Your task to perform on an android device: turn off wifi Image 0: 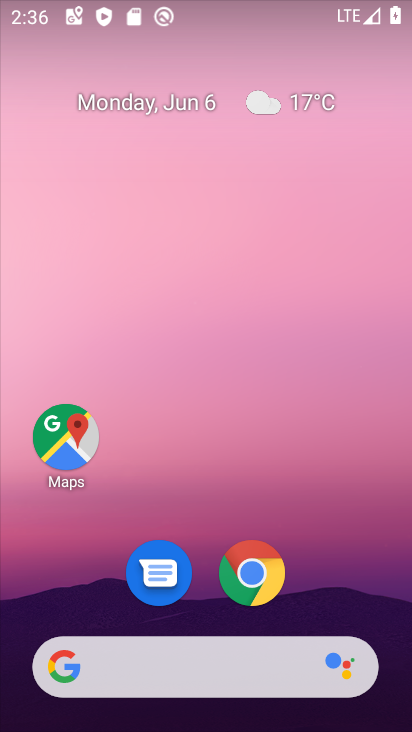
Step 0: drag from (350, 612) to (353, 180)
Your task to perform on an android device: turn off wifi Image 1: 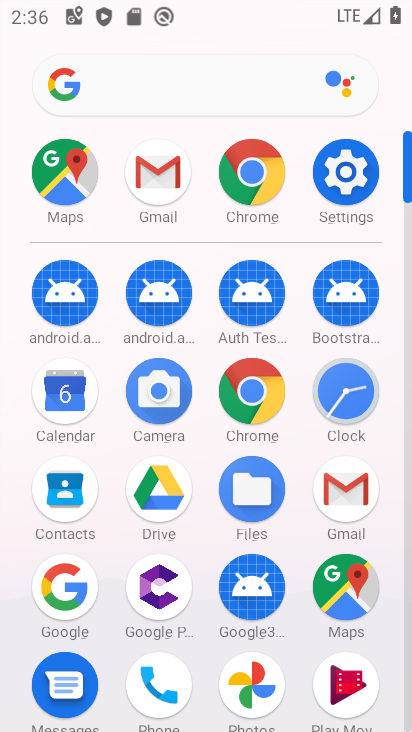
Step 1: click (343, 181)
Your task to perform on an android device: turn off wifi Image 2: 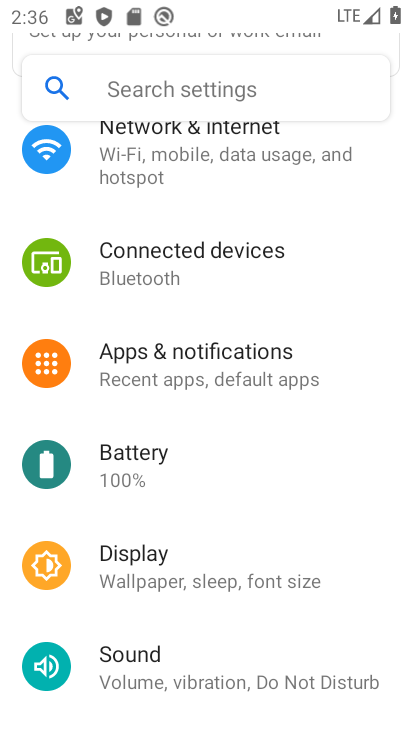
Step 2: drag from (371, 459) to (375, 327)
Your task to perform on an android device: turn off wifi Image 3: 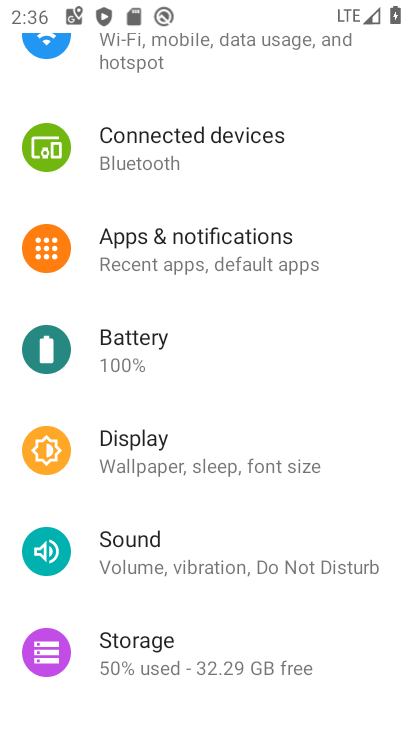
Step 3: drag from (361, 517) to (359, 344)
Your task to perform on an android device: turn off wifi Image 4: 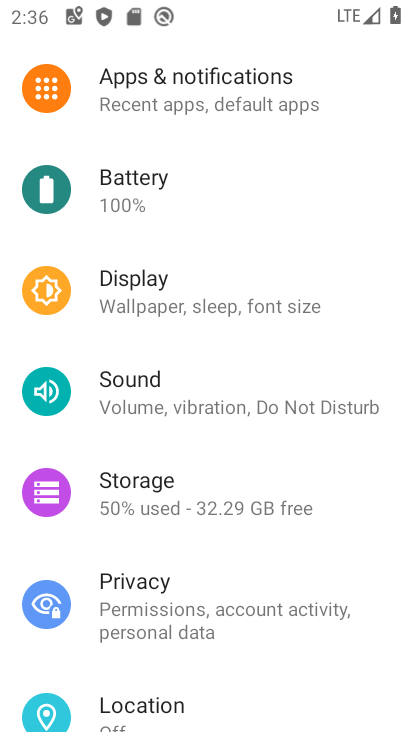
Step 4: drag from (362, 542) to (346, 405)
Your task to perform on an android device: turn off wifi Image 5: 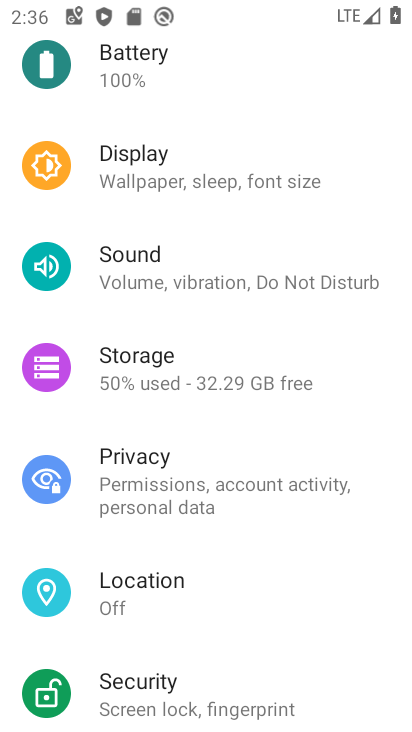
Step 5: drag from (358, 578) to (369, 431)
Your task to perform on an android device: turn off wifi Image 6: 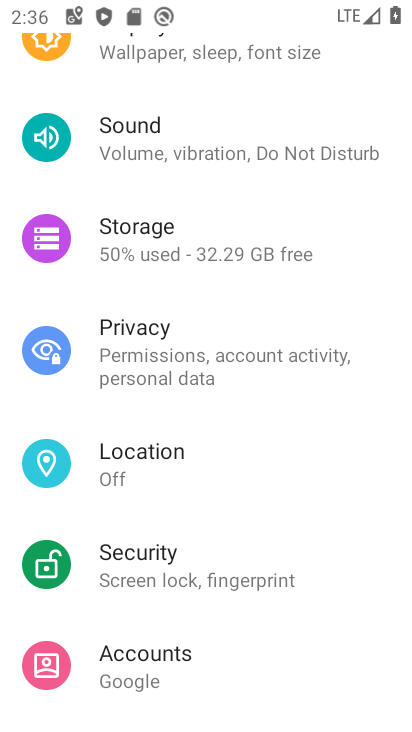
Step 6: drag from (343, 597) to (360, 409)
Your task to perform on an android device: turn off wifi Image 7: 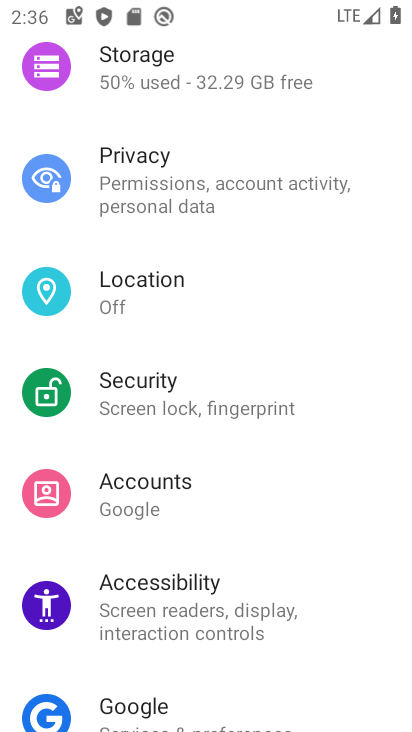
Step 7: drag from (366, 603) to (361, 453)
Your task to perform on an android device: turn off wifi Image 8: 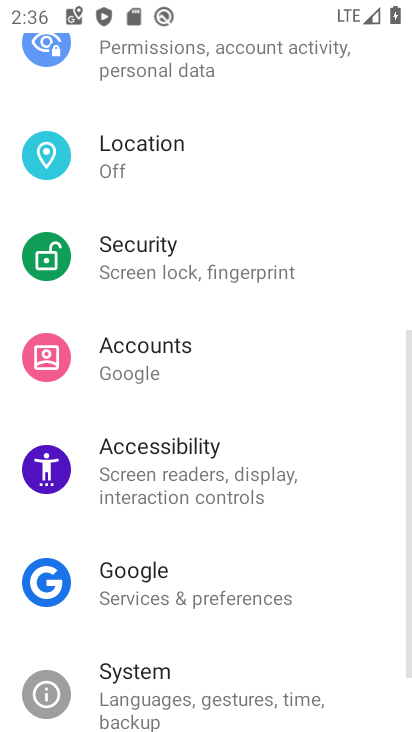
Step 8: drag from (337, 278) to (378, 460)
Your task to perform on an android device: turn off wifi Image 9: 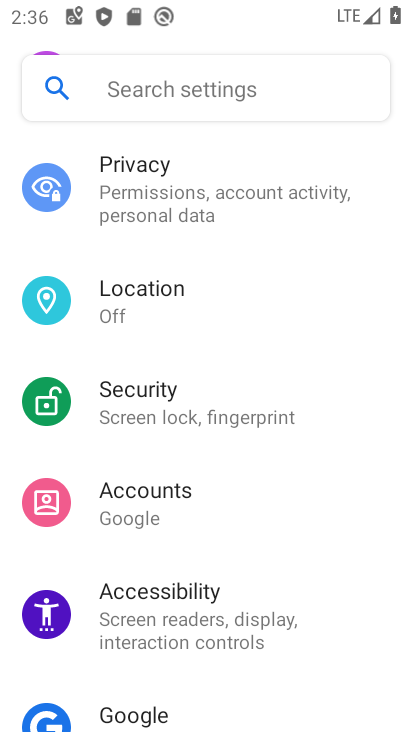
Step 9: drag from (353, 265) to (355, 401)
Your task to perform on an android device: turn off wifi Image 10: 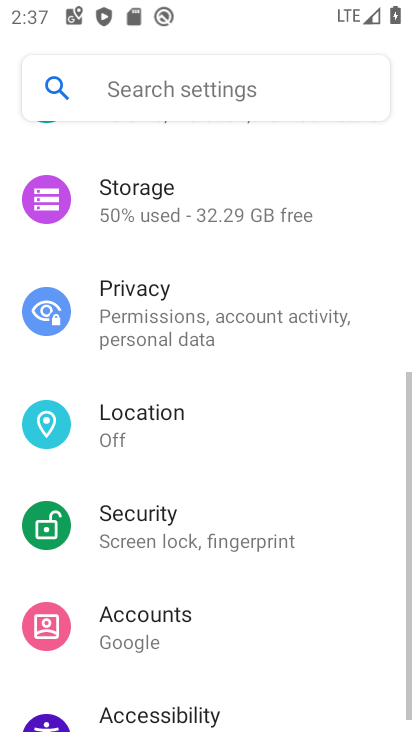
Step 10: drag from (366, 232) to (382, 354)
Your task to perform on an android device: turn off wifi Image 11: 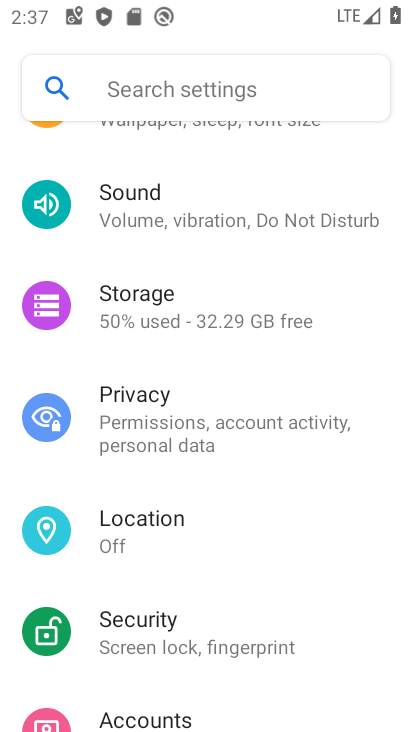
Step 11: drag from (368, 184) to (351, 352)
Your task to perform on an android device: turn off wifi Image 12: 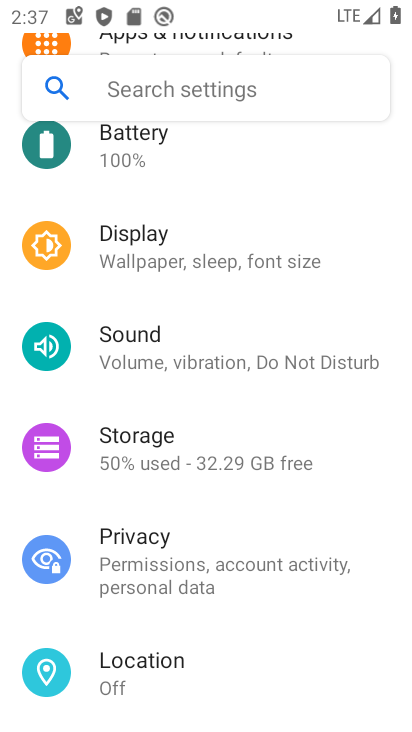
Step 12: drag from (363, 225) to (350, 375)
Your task to perform on an android device: turn off wifi Image 13: 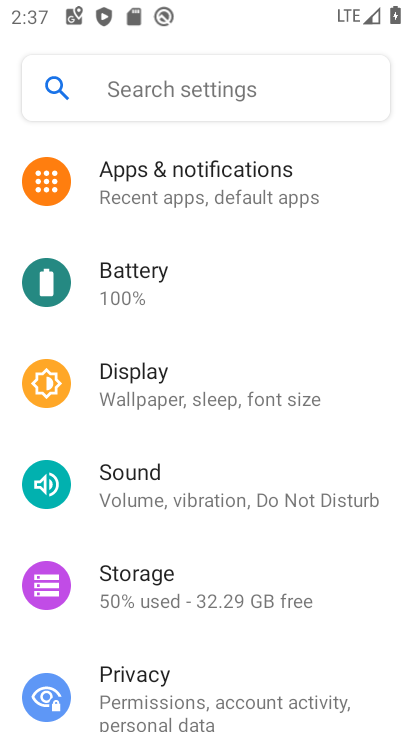
Step 13: drag from (344, 165) to (325, 344)
Your task to perform on an android device: turn off wifi Image 14: 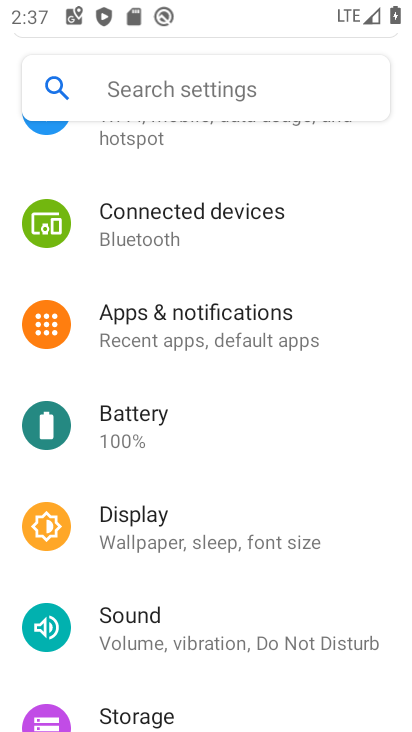
Step 14: drag from (342, 165) to (356, 339)
Your task to perform on an android device: turn off wifi Image 15: 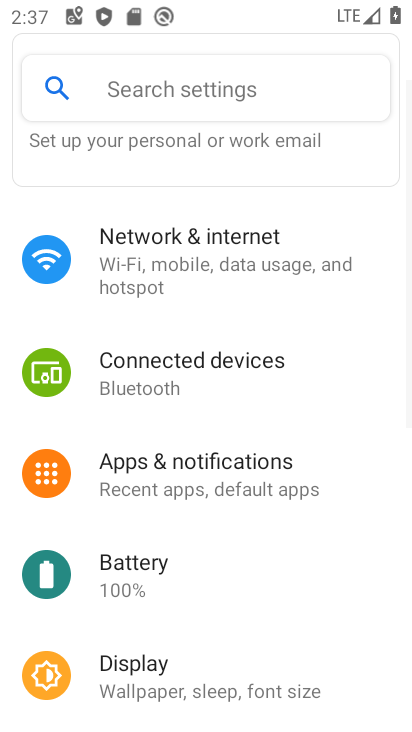
Step 15: click (312, 273)
Your task to perform on an android device: turn off wifi Image 16: 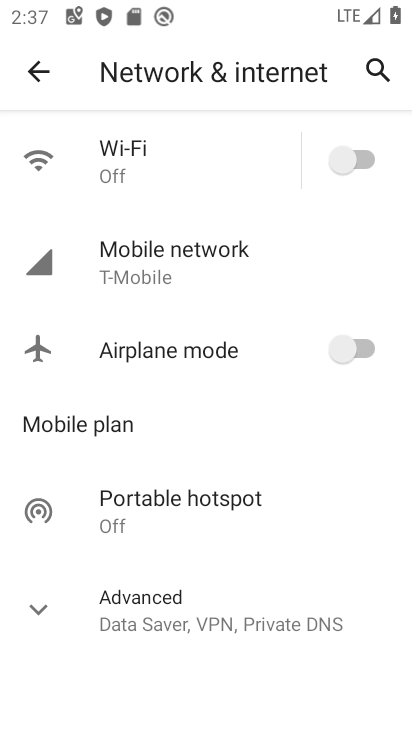
Step 16: task complete